Your task to perform on an android device: clear all cookies in the chrome app Image 0: 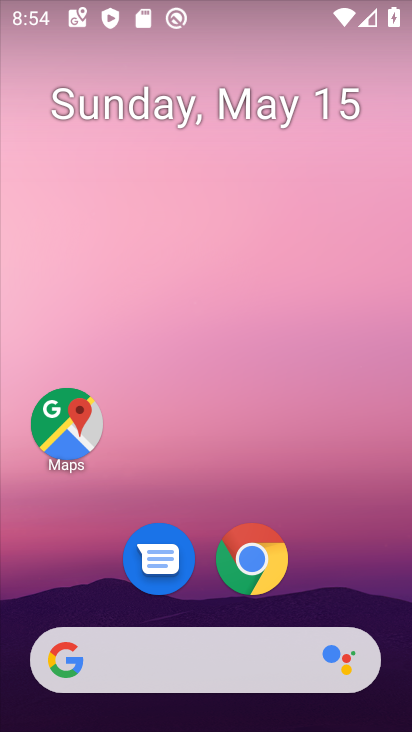
Step 0: click (245, 577)
Your task to perform on an android device: clear all cookies in the chrome app Image 1: 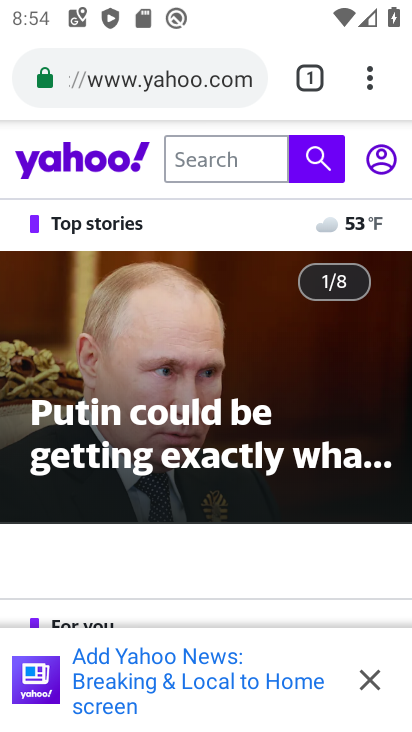
Step 1: click (355, 108)
Your task to perform on an android device: clear all cookies in the chrome app Image 2: 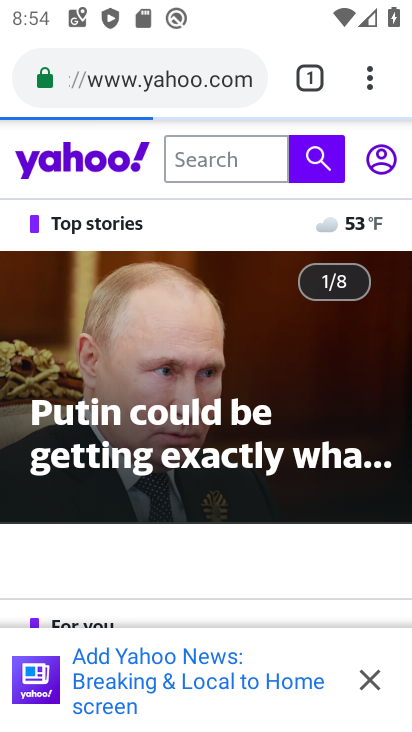
Step 2: click (370, 92)
Your task to perform on an android device: clear all cookies in the chrome app Image 3: 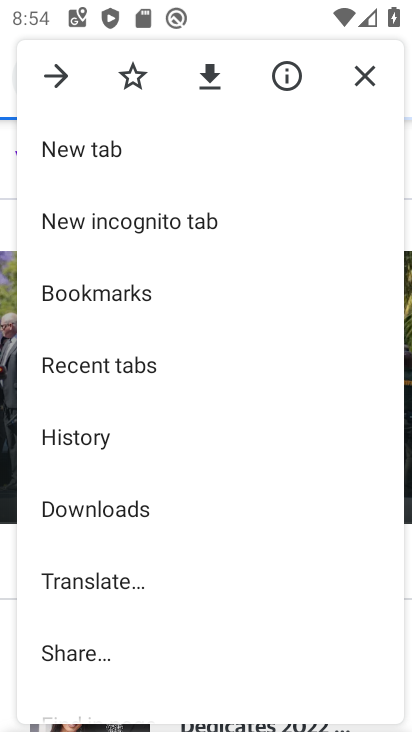
Step 3: drag from (184, 628) to (232, 346)
Your task to perform on an android device: clear all cookies in the chrome app Image 4: 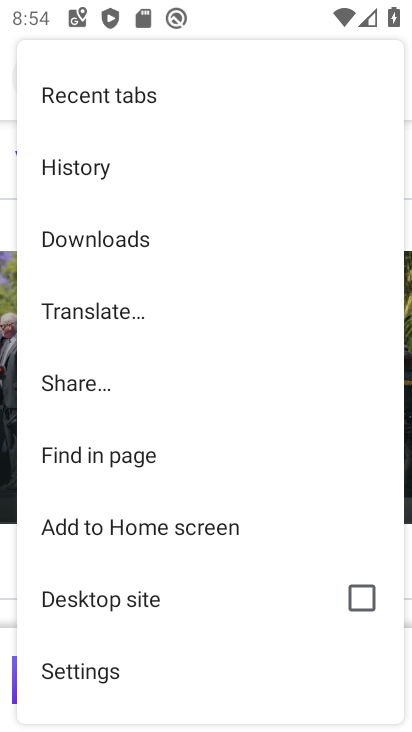
Step 4: click (120, 653)
Your task to perform on an android device: clear all cookies in the chrome app Image 5: 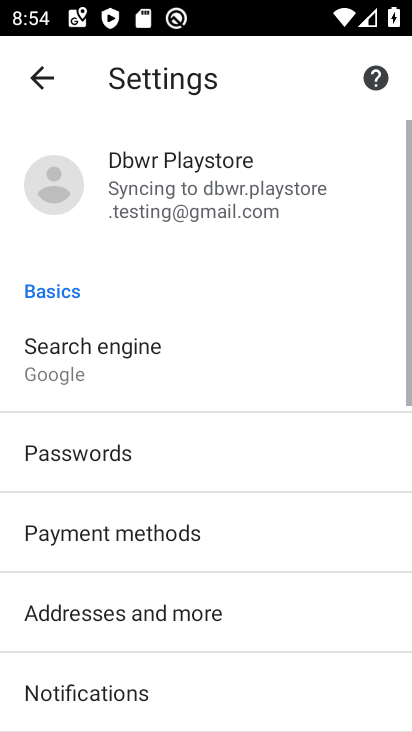
Step 5: drag from (128, 605) to (200, 224)
Your task to perform on an android device: clear all cookies in the chrome app Image 6: 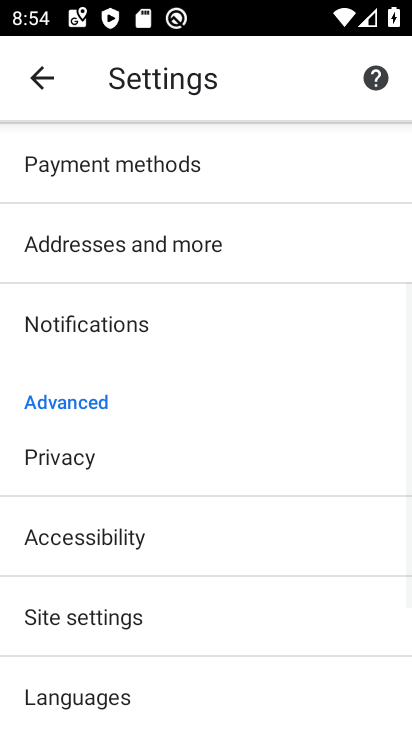
Step 6: click (24, 74)
Your task to perform on an android device: clear all cookies in the chrome app Image 7: 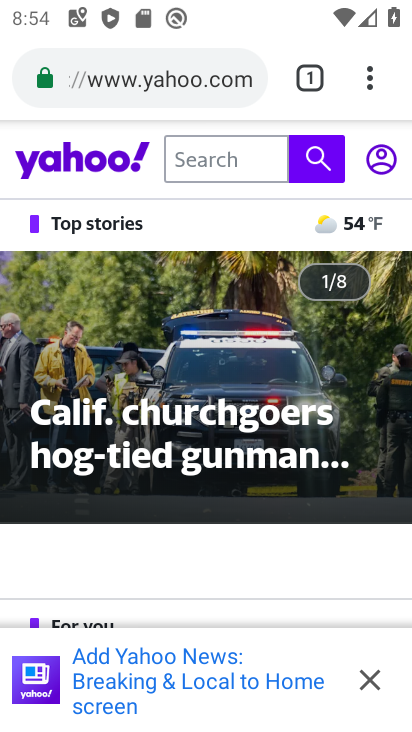
Step 7: click (356, 97)
Your task to perform on an android device: clear all cookies in the chrome app Image 8: 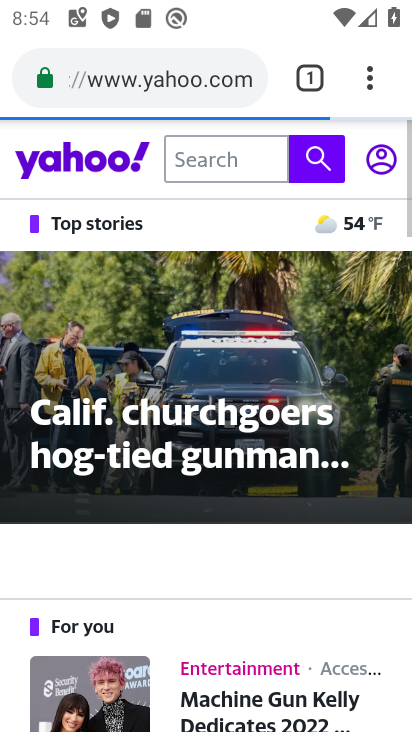
Step 8: click (364, 69)
Your task to perform on an android device: clear all cookies in the chrome app Image 9: 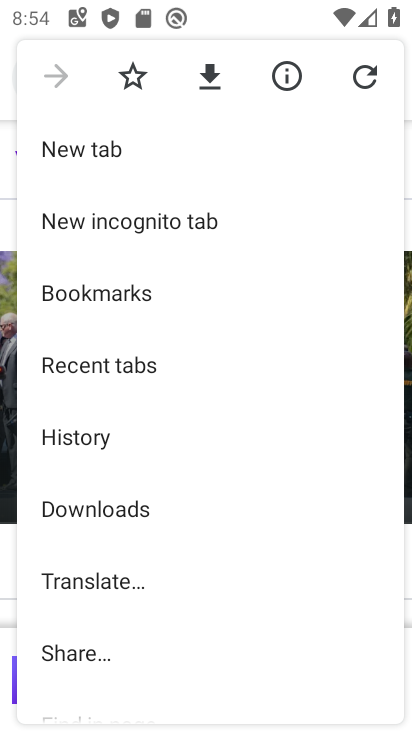
Step 9: click (168, 442)
Your task to perform on an android device: clear all cookies in the chrome app Image 10: 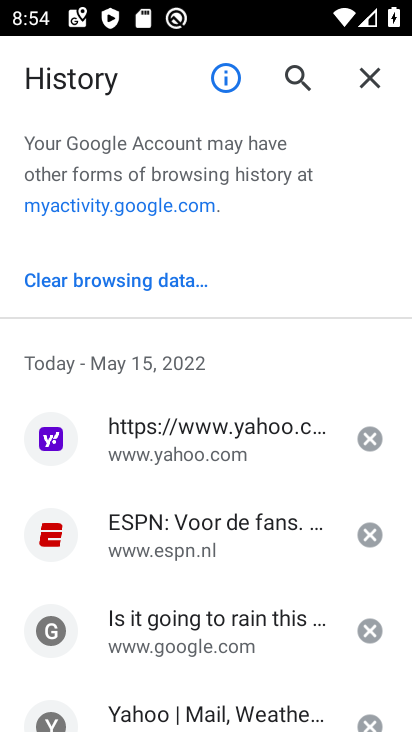
Step 10: click (182, 284)
Your task to perform on an android device: clear all cookies in the chrome app Image 11: 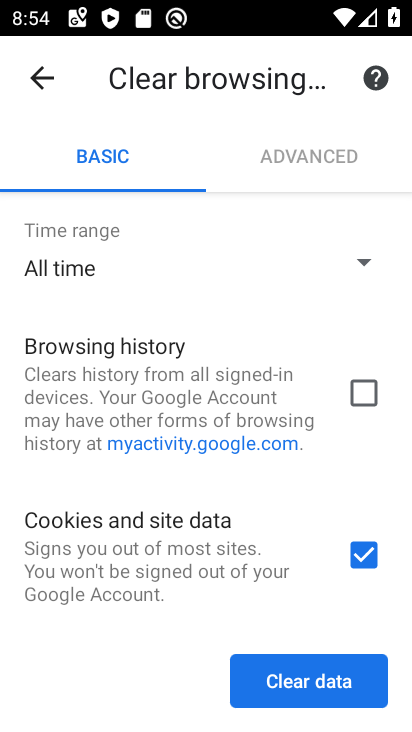
Step 11: click (339, 670)
Your task to perform on an android device: clear all cookies in the chrome app Image 12: 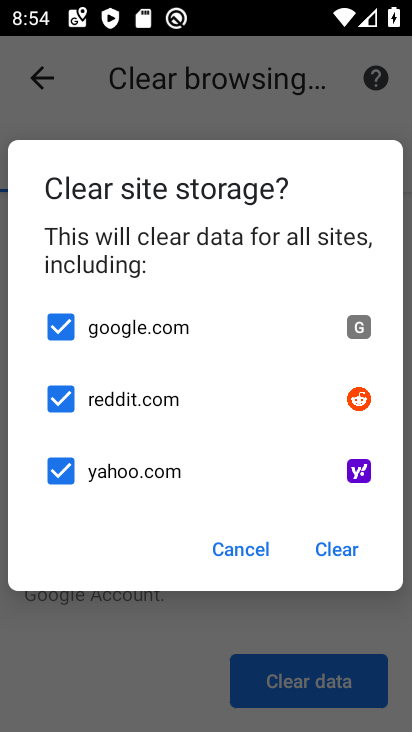
Step 12: click (349, 562)
Your task to perform on an android device: clear all cookies in the chrome app Image 13: 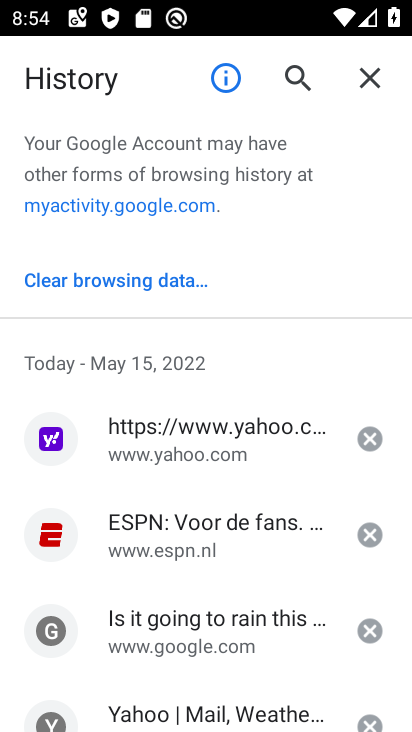
Step 13: task complete